Your task to perform on an android device: Go to battery settings Image 0: 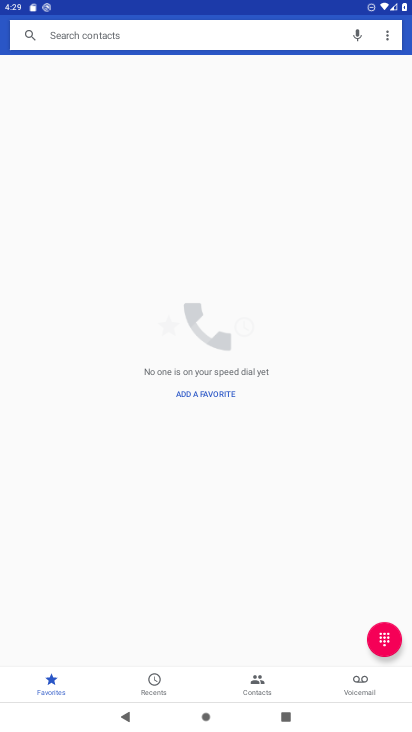
Step 0: press home button
Your task to perform on an android device: Go to battery settings Image 1: 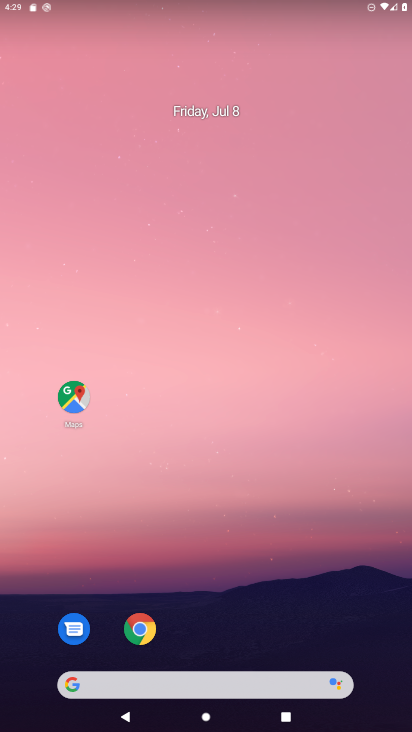
Step 1: drag from (249, 630) to (247, 233)
Your task to perform on an android device: Go to battery settings Image 2: 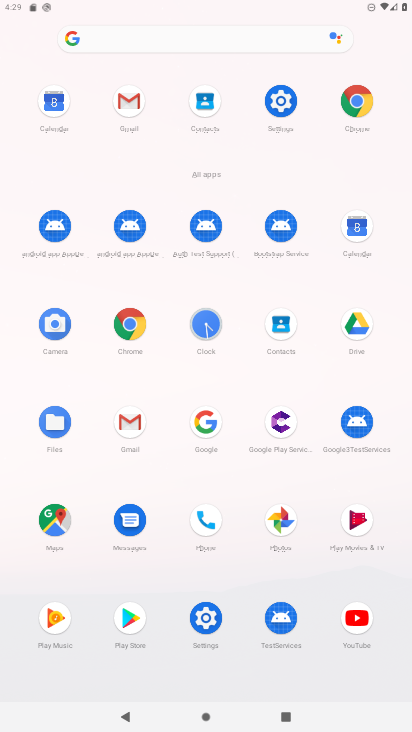
Step 2: click (280, 99)
Your task to perform on an android device: Go to battery settings Image 3: 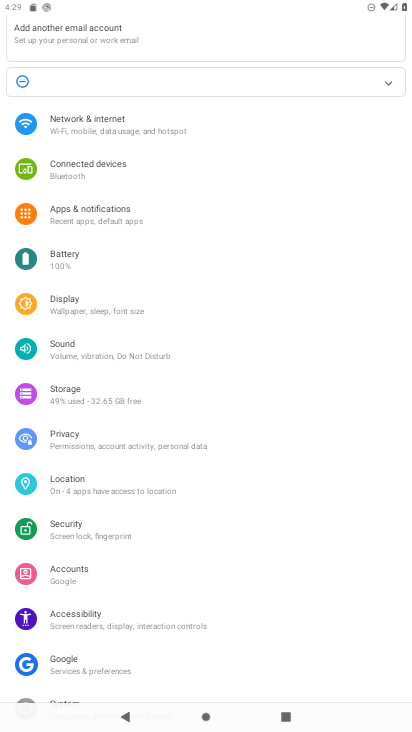
Step 3: click (123, 264)
Your task to perform on an android device: Go to battery settings Image 4: 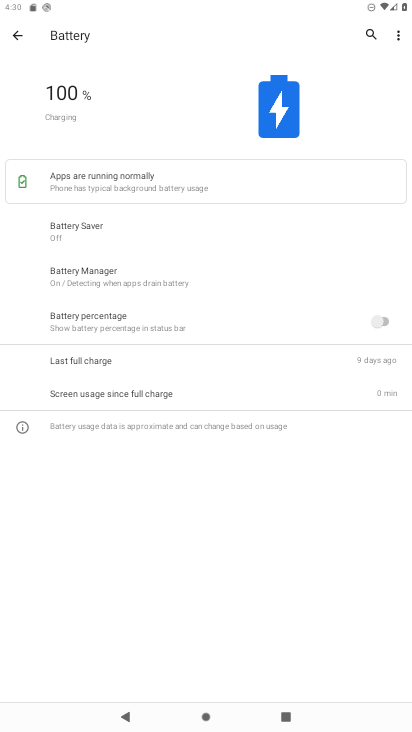
Step 4: task complete